Your task to perform on an android device: turn off sleep mode Image 0: 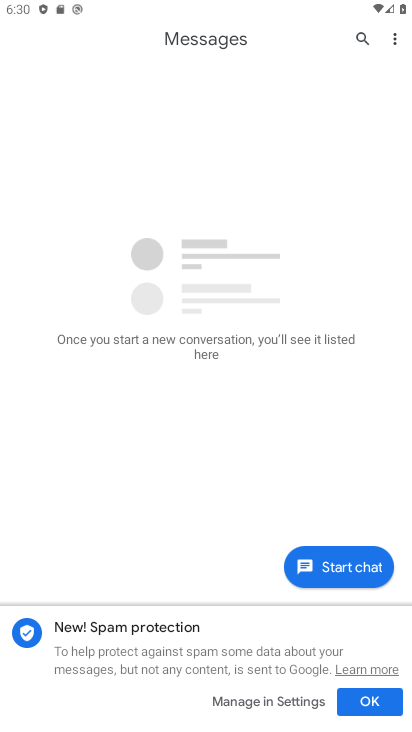
Step 0: press home button
Your task to perform on an android device: turn off sleep mode Image 1: 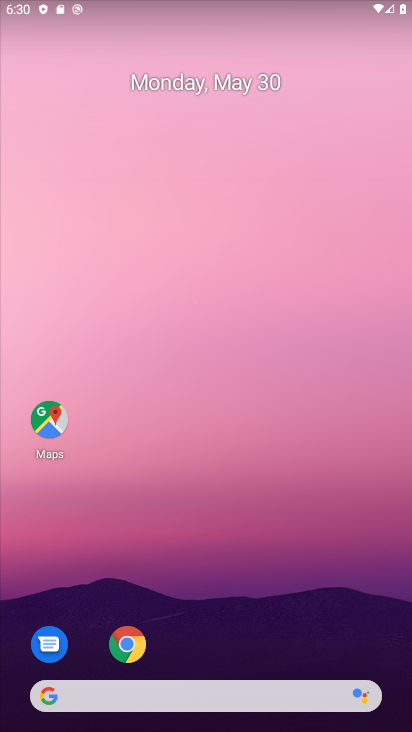
Step 1: task complete